Your task to perform on an android device: toggle wifi Image 0: 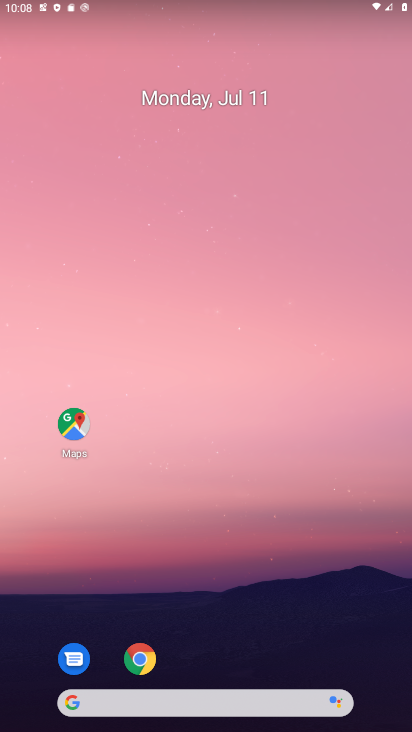
Step 0: drag from (328, 730) to (251, 523)
Your task to perform on an android device: toggle wifi Image 1: 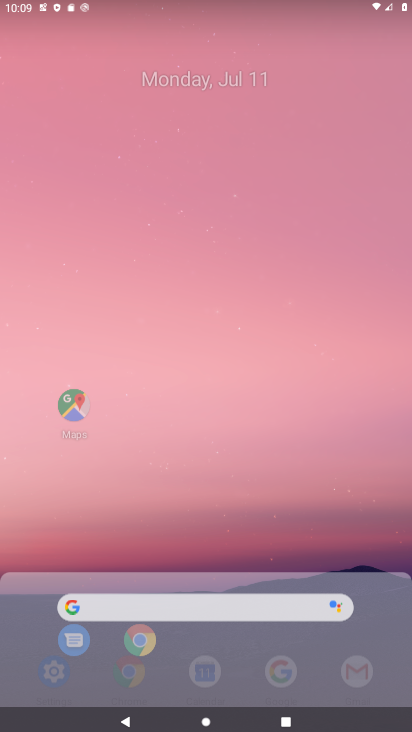
Step 1: drag from (246, 252) to (248, 130)
Your task to perform on an android device: toggle wifi Image 2: 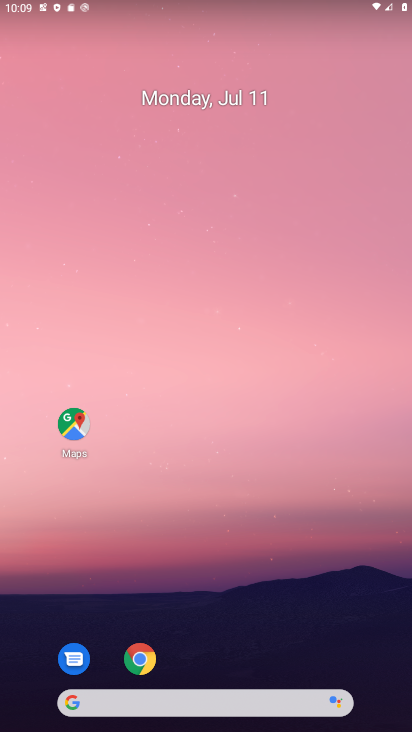
Step 2: drag from (223, 714) to (219, 171)
Your task to perform on an android device: toggle wifi Image 3: 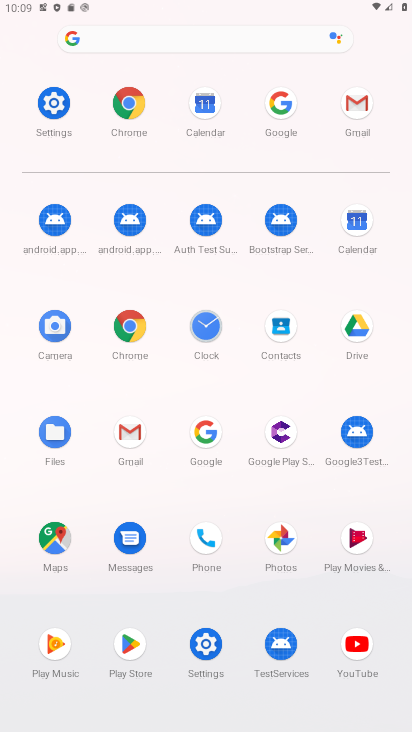
Step 3: click (50, 107)
Your task to perform on an android device: toggle wifi Image 4: 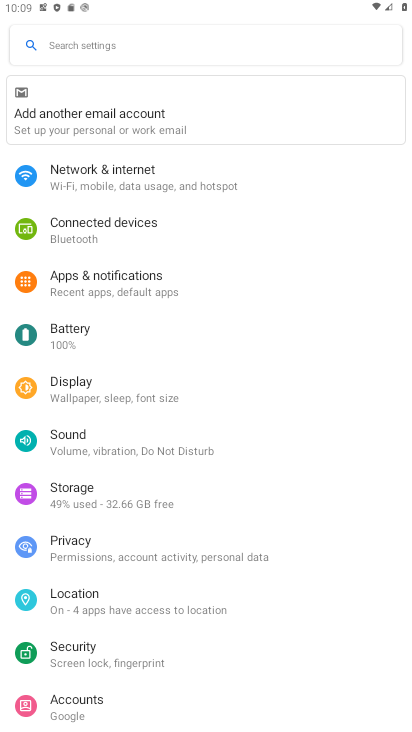
Step 4: click (85, 177)
Your task to perform on an android device: toggle wifi Image 5: 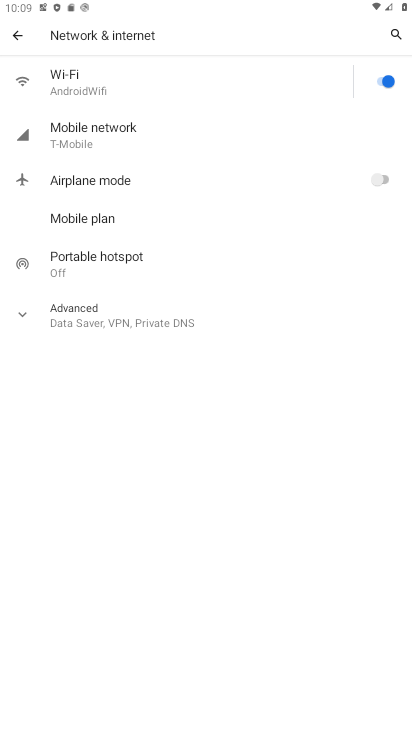
Step 5: click (386, 79)
Your task to perform on an android device: toggle wifi Image 6: 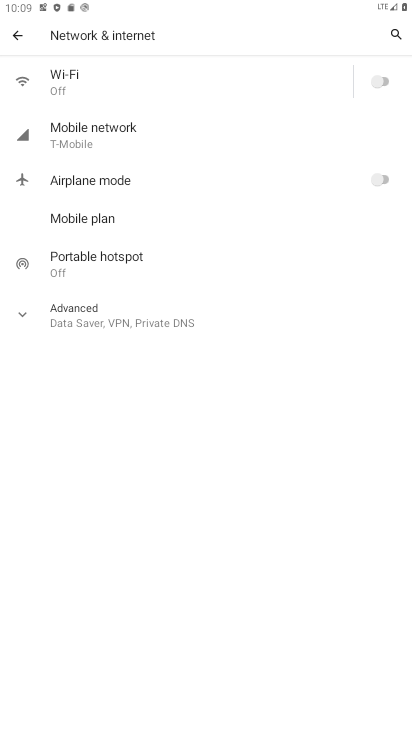
Step 6: task complete